Your task to perform on an android device: Play the last video I watched on Youtube Image 0: 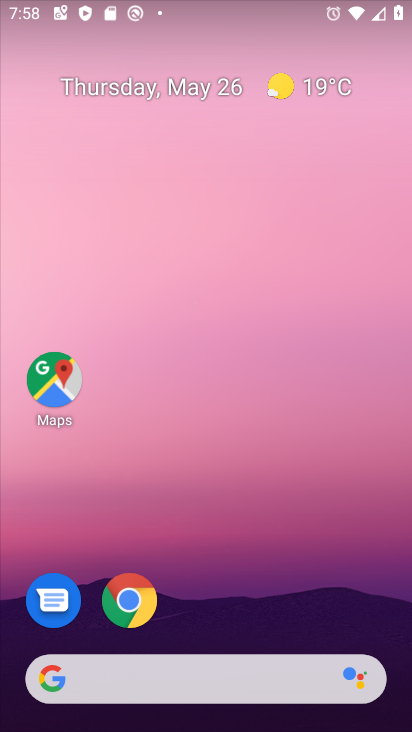
Step 0: press home button
Your task to perform on an android device: Play the last video I watched on Youtube Image 1: 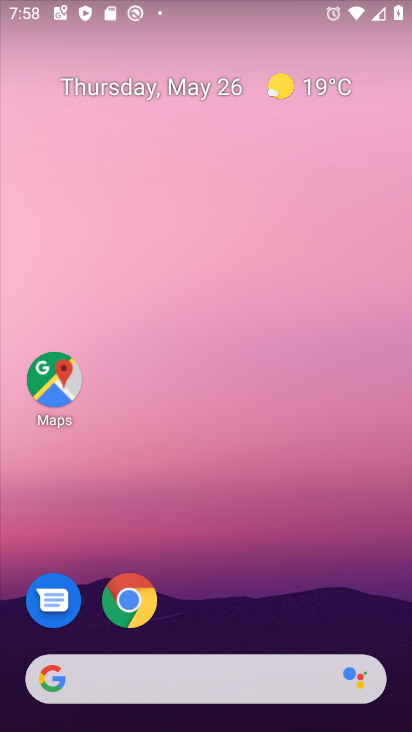
Step 1: drag from (268, 620) to (270, 270)
Your task to perform on an android device: Play the last video I watched on Youtube Image 2: 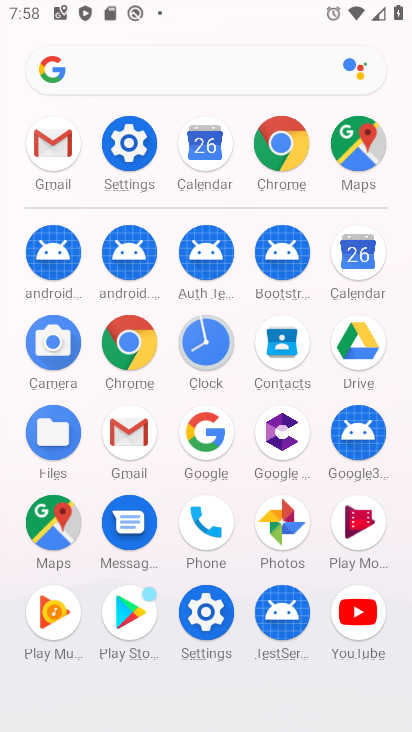
Step 2: click (368, 630)
Your task to perform on an android device: Play the last video I watched on Youtube Image 3: 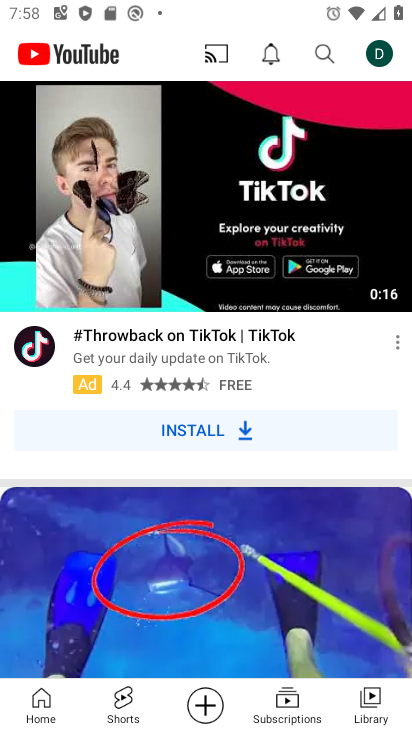
Step 3: click (370, 698)
Your task to perform on an android device: Play the last video I watched on Youtube Image 4: 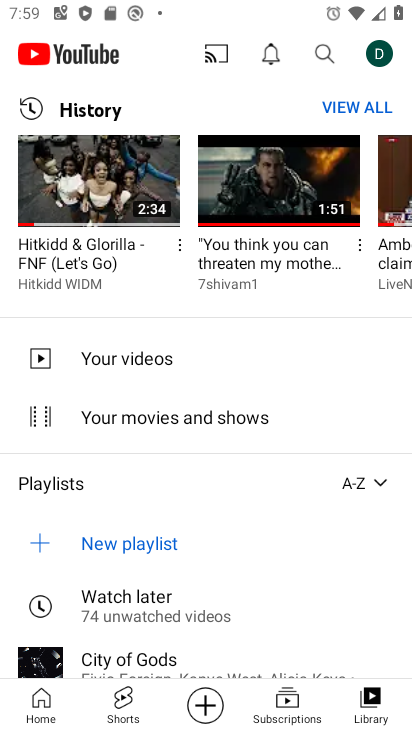
Step 4: click (53, 194)
Your task to perform on an android device: Play the last video I watched on Youtube Image 5: 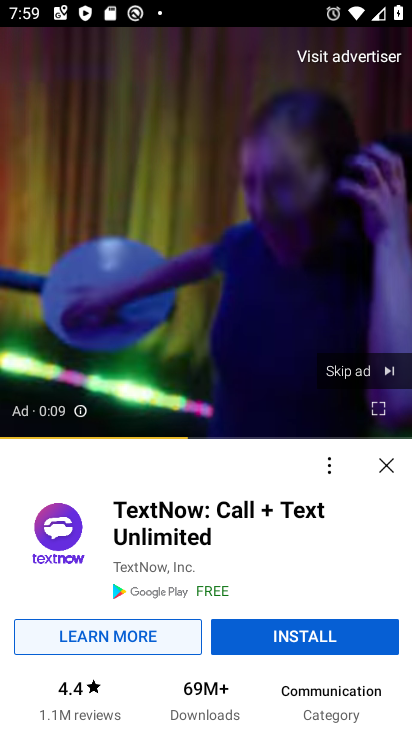
Step 5: click (359, 377)
Your task to perform on an android device: Play the last video I watched on Youtube Image 6: 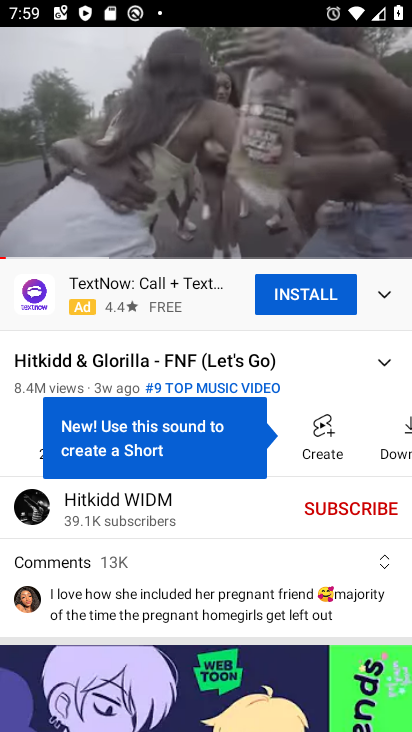
Step 6: task complete